Your task to perform on an android device: choose inbox layout in the gmail app Image 0: 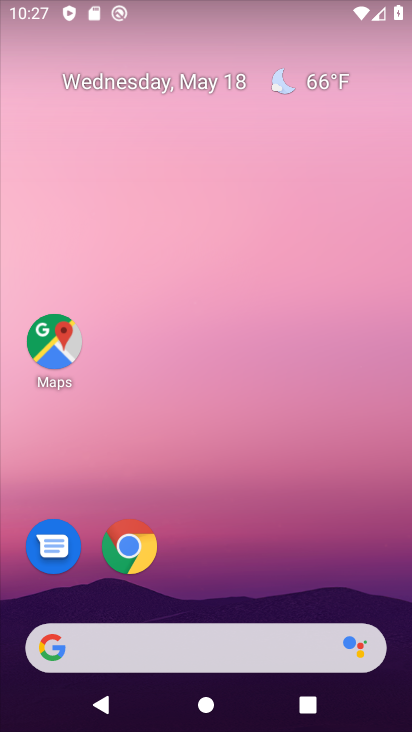
Step 0: drag from (231, 603) to (272, 93)
Your task to perform on an android device: choose inbox layout in the gmail app Image 1: 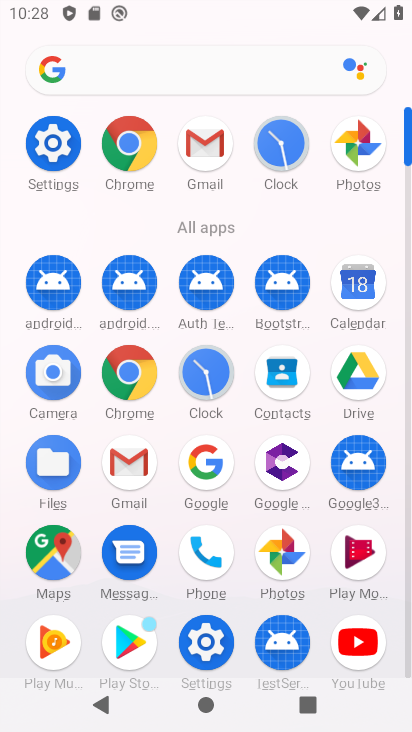
Step 1: click (208, 152)
Your task to perform on an android device: choose inbox layout in the gmail app Image 2: 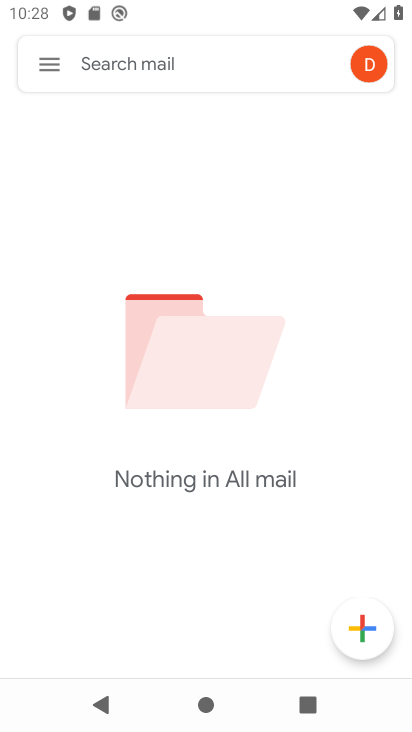
Step 2: click (49, 65)
Your task to perform on an android device: choose inbox layout in the gmail app Image 3: 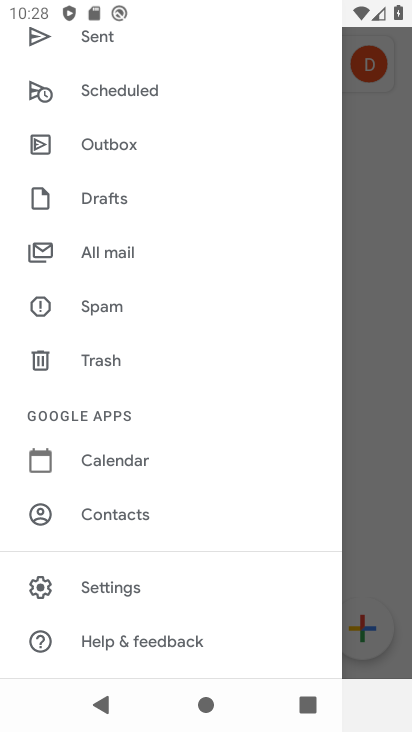
Step 3: click (106, 587)
Your task to perform on an android device: choose inbox layout in the gmail app Image 4: 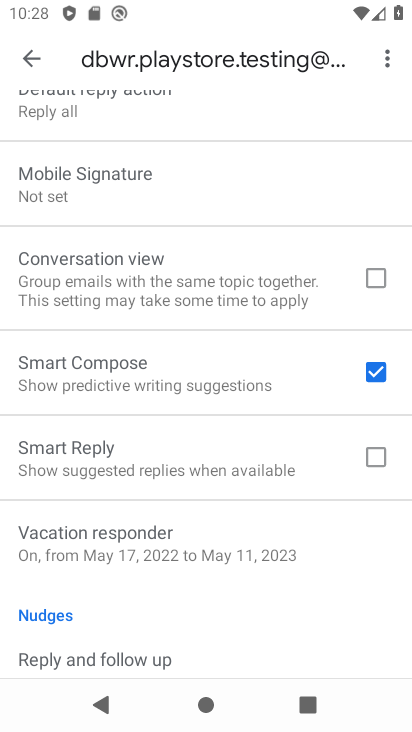
Step 4: drag from (204, 193) to (229, 469)
Your task to perform on an android device: choose inbox layout in the gmail app Image 5: 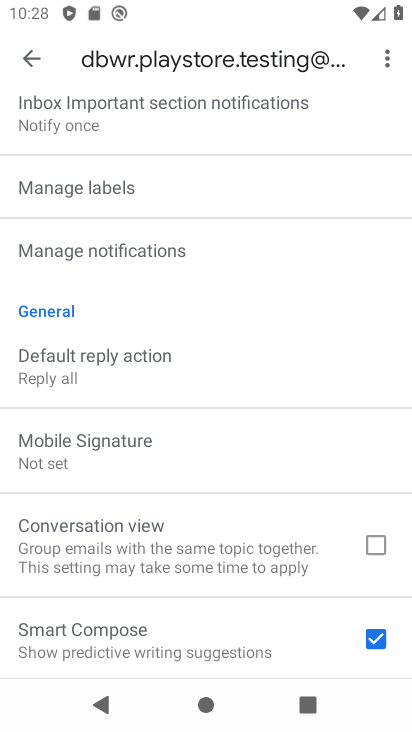
Step 5: drag from (124, 177) to (149, 489)
Your task to perform on an android device: choose inbox layout in the gmail app Image 6: 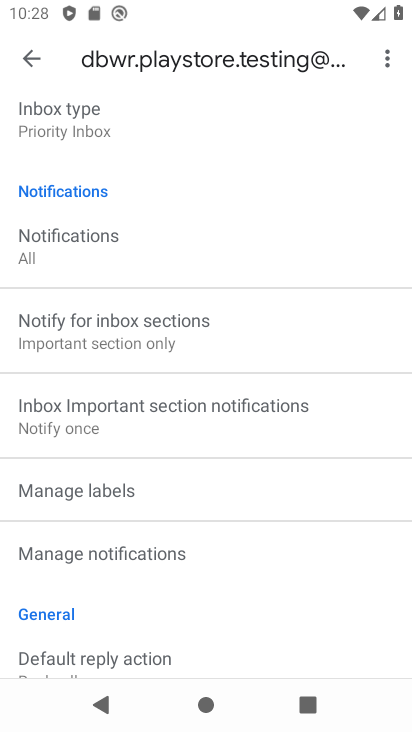
Step 6: click (111, 133)
Your task to perform on an android device: choose inbox layout in the gmail app Image 7: 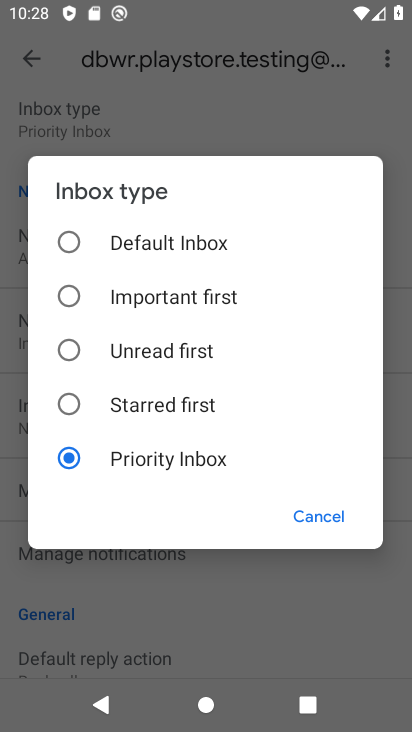
Step 7: click (244, 298)
Your task to perform on an android device: choose inbox layout in the gmail app Image 8: 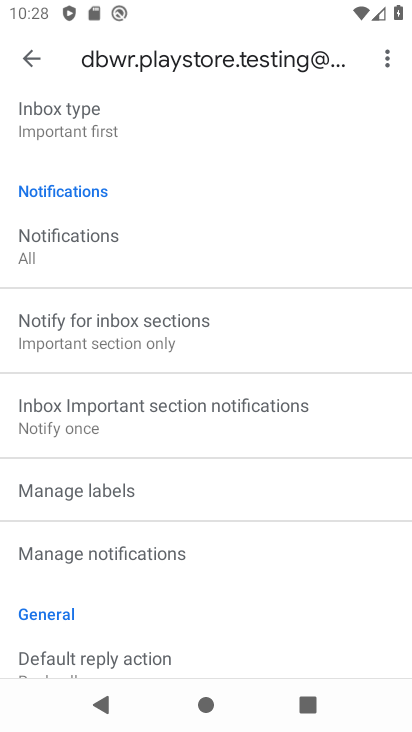
Step 8: task complete